Your task to perform on an android device: change timer sound Image 0: 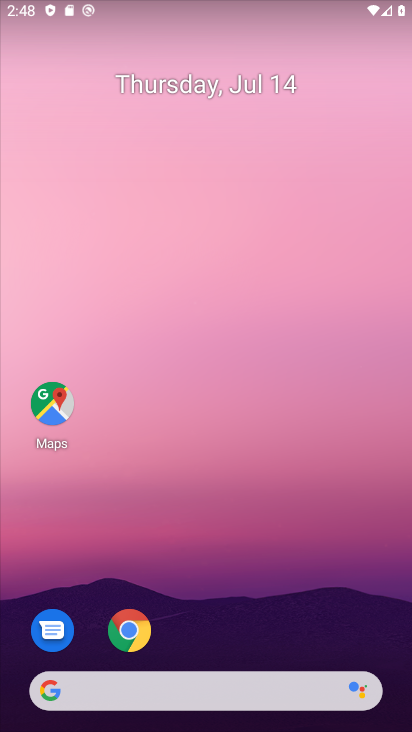
Step 0: drag from (225, 636) to (200, 3)
Your task to perform on an android device: change timer sound Image 1: 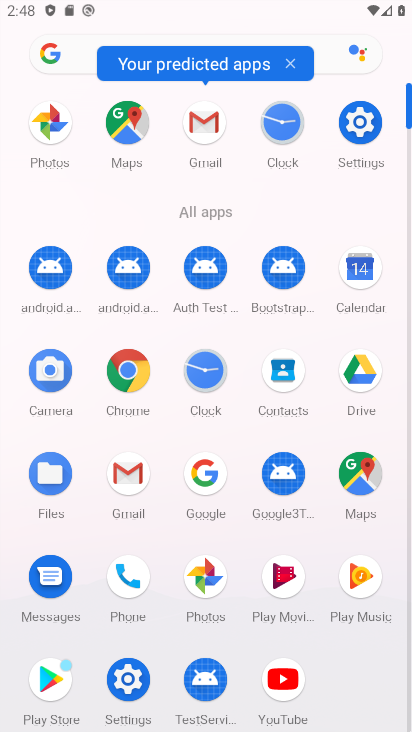
Step 1: click (196, 367)
Your task to perform on an android device: change timer sound Image 2: 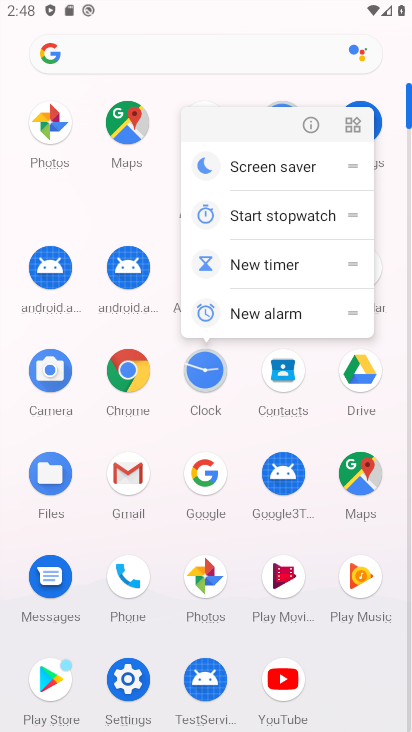
Step 2: click (196, 367)
Your task to perform on an android device: change timer sound Image 3: 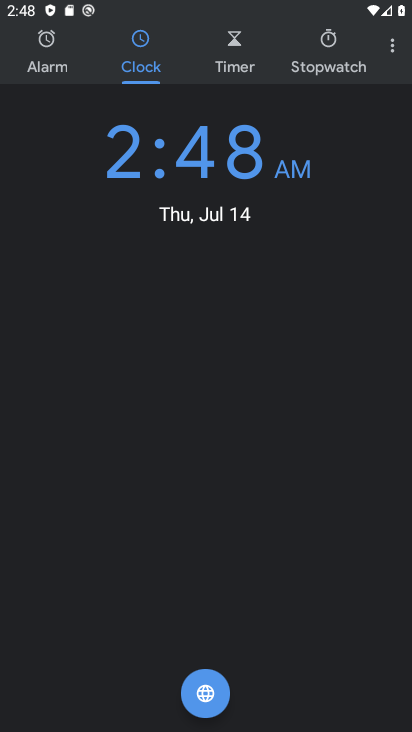
Step 3: drag from (394, 48) to (359, 78)
Your task to perform on an android device: change timer sound Image 4: 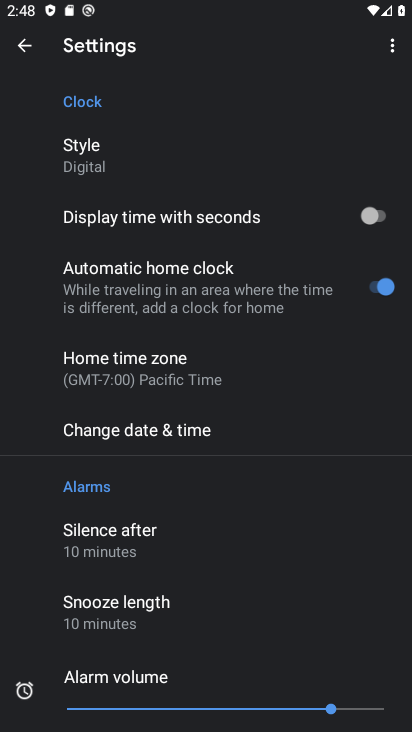
Step 4: drag from (184, 491) to (165, 102)
Your task to perform on an android device: change timer sound Image 5: 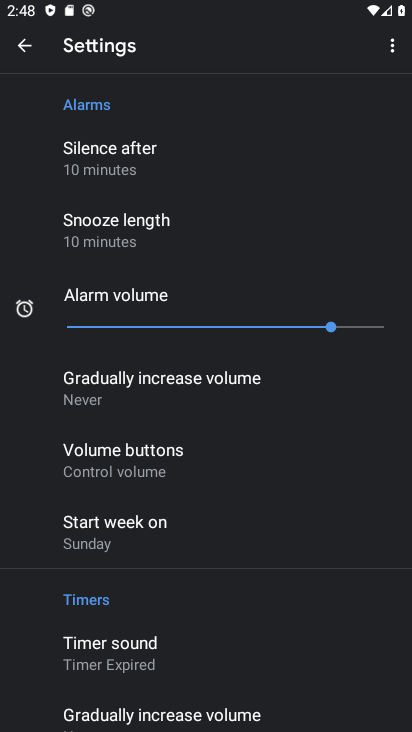
Step 5: drag from (185, 448) to (171, 259)
Your task to perform on an android device: change timer sound Image 6: 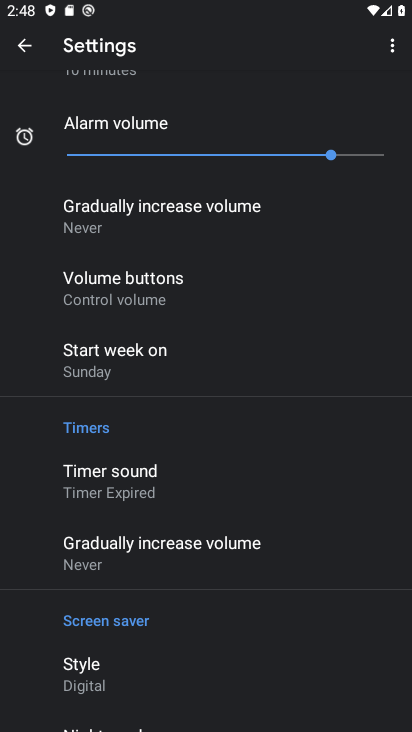
Step 6: click (119, 490)
Your task to perform on an android device: change timer sound Image 7: 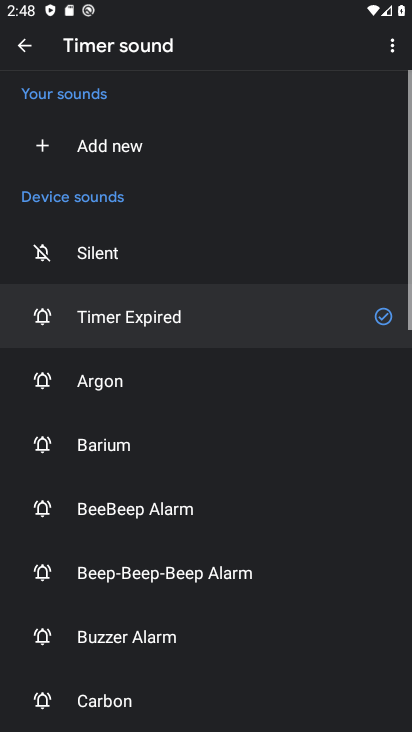
Step 7: click (161, 370)
Your task to perform on an android device: change timer sound Image 8: 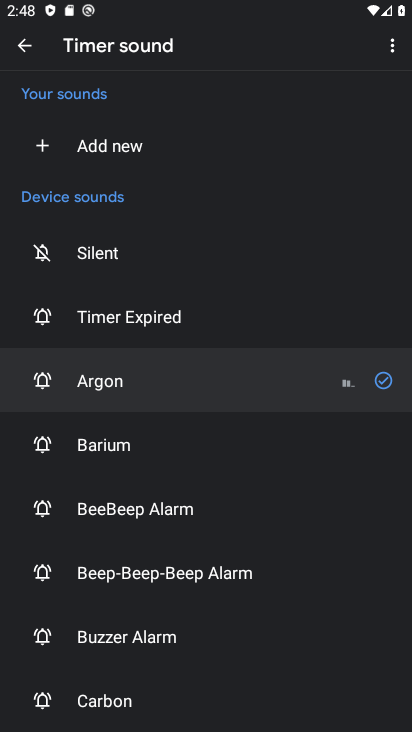
Step 8: task complete